Your task to perform on an android device: Open Reddit.com Image 0: 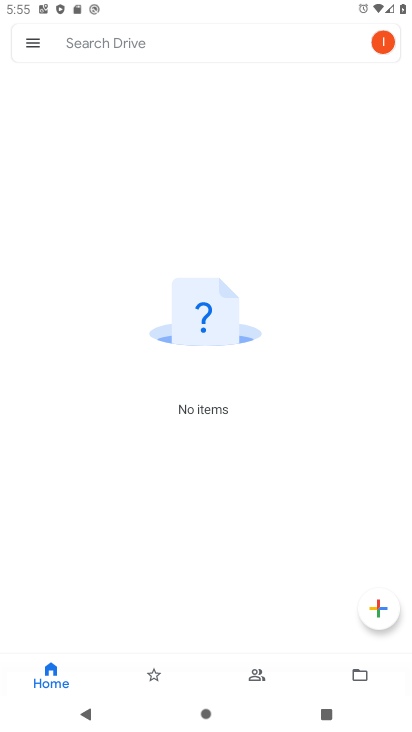
Step 0: press home button
Your task to perform on an android device: Open Reddit.com Image 1: 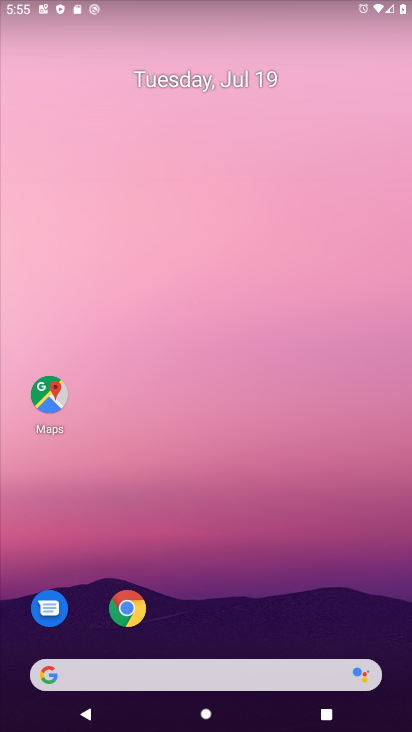
Step 1: drag from (301, 675) to (411, 159)
Your task to perform on an android device: Open Reddit.com Image 2: 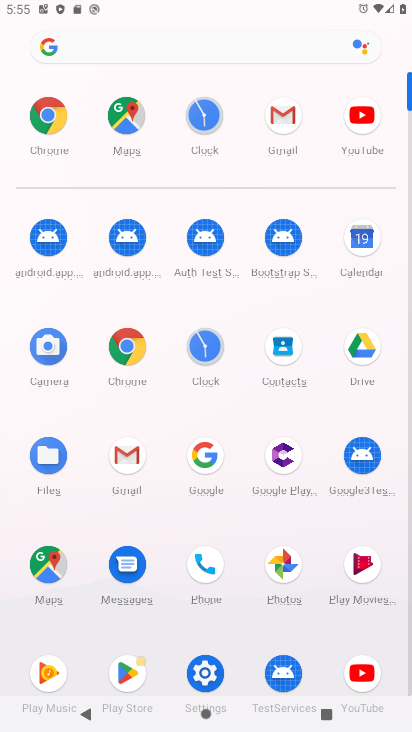
Step 2: click (132, 349)
Your task to perform on an android device: Open Reddit.com Image 3: 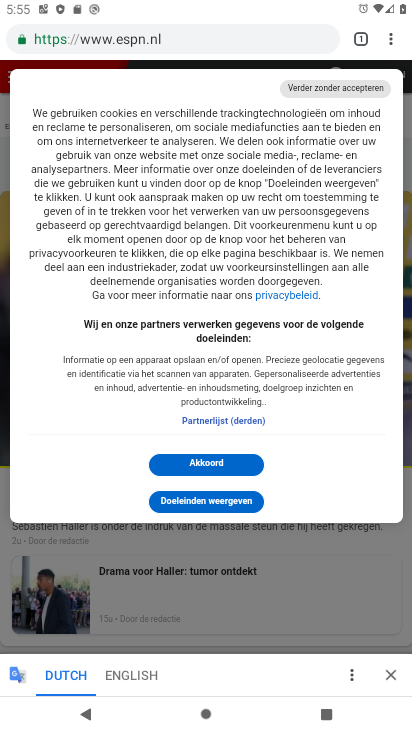
Step 3: click (196, 47)
Your task to perform on an android device: Open Reddit.com Image 4: 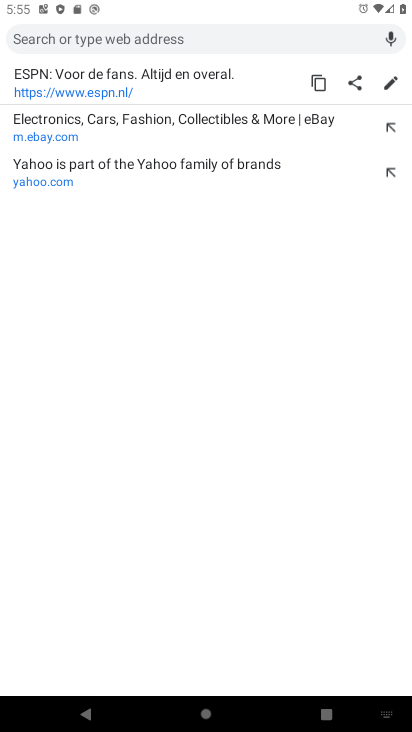
Step 4: type "reddit.com"
Your task to perform on an android device: Open Reddit.com Image 5: 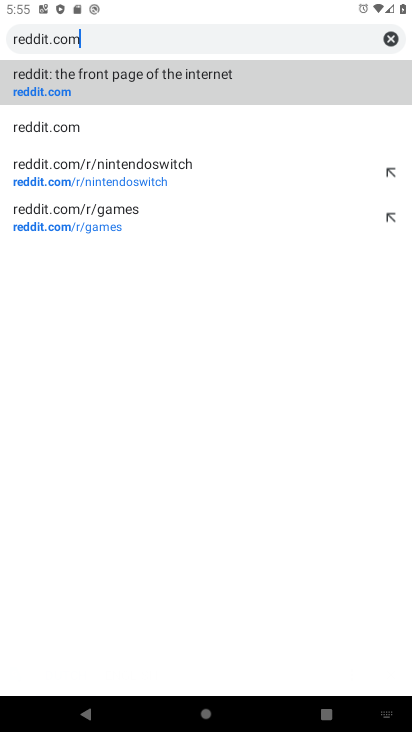
Step 5: click (247, 78)
Your task to perform on an android device: Open Reddit.com Image 6: 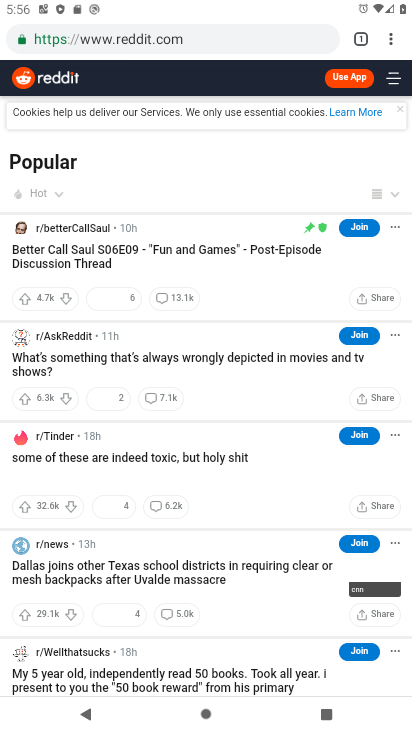
Step 6: task complete